Your task to perform on an android device: turn off notifications settings in the gmail app Image 0: 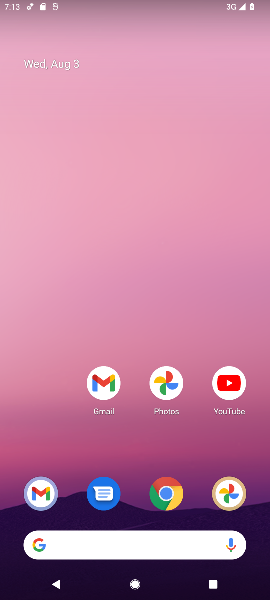
Step 0: drag from (119, 493) to (179, 173)
Your task to perform on an android device: turn off notifications settings in the gmail app Image 1: 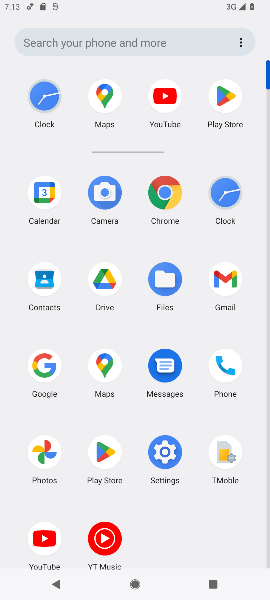
Step 1: click (227, 281)
Your task to perform on an android device: turn off notifications settings in the gmail app Image 2: 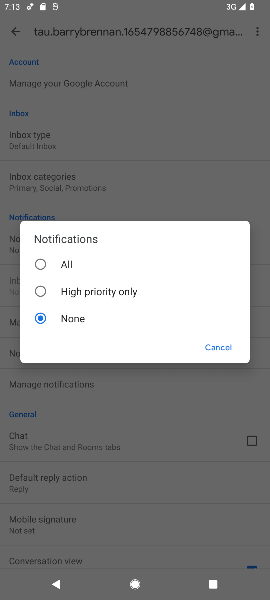
Step 2: task complete